Your task to perform on an android device: turn on showing notifications on the lock screen Image 0: 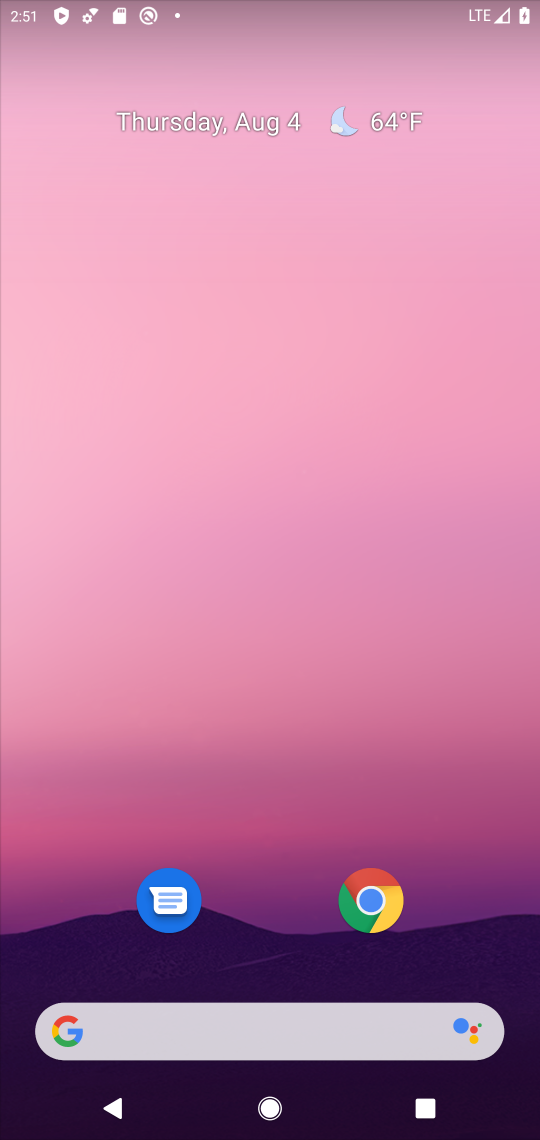
Step 0: drag from (502, 969) to (413, 28)
Your task to perform on an android device: turn on showing notifications on the lock screen Image 1: 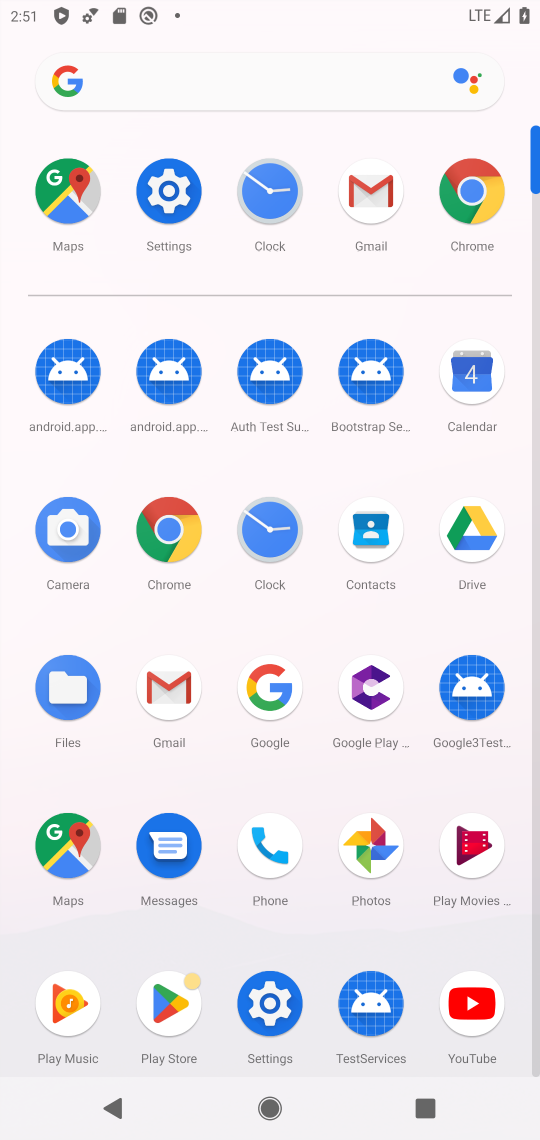
Step 1: click (151, 205)
Your task to perform on an android device: turn on showing notifications on the lock screen Image 2: 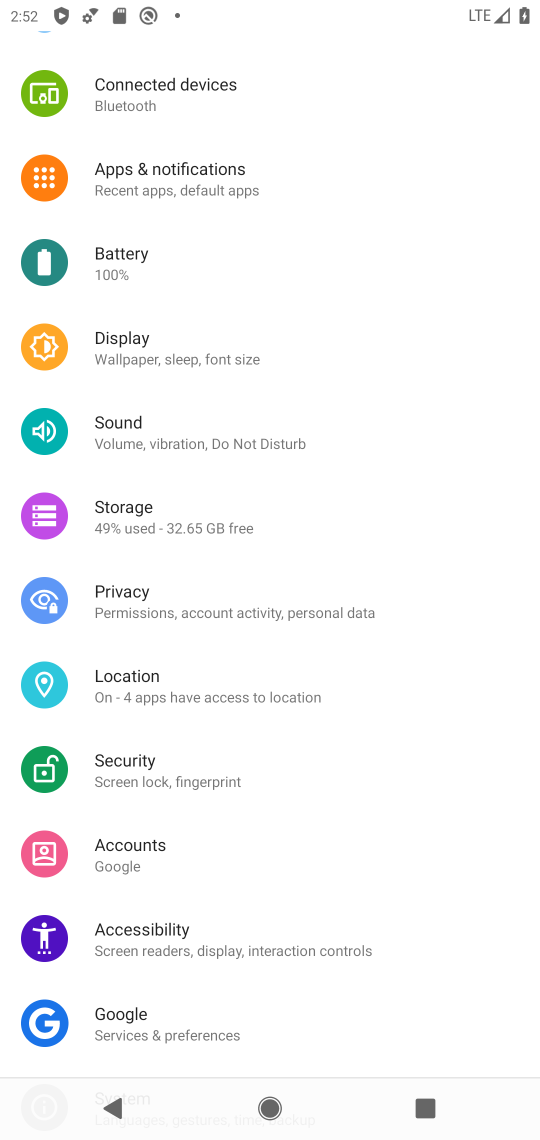
Step 2: click (193, 183)
Your task to perform on an android device: turn on showing notifications on the lock screen Image 3: 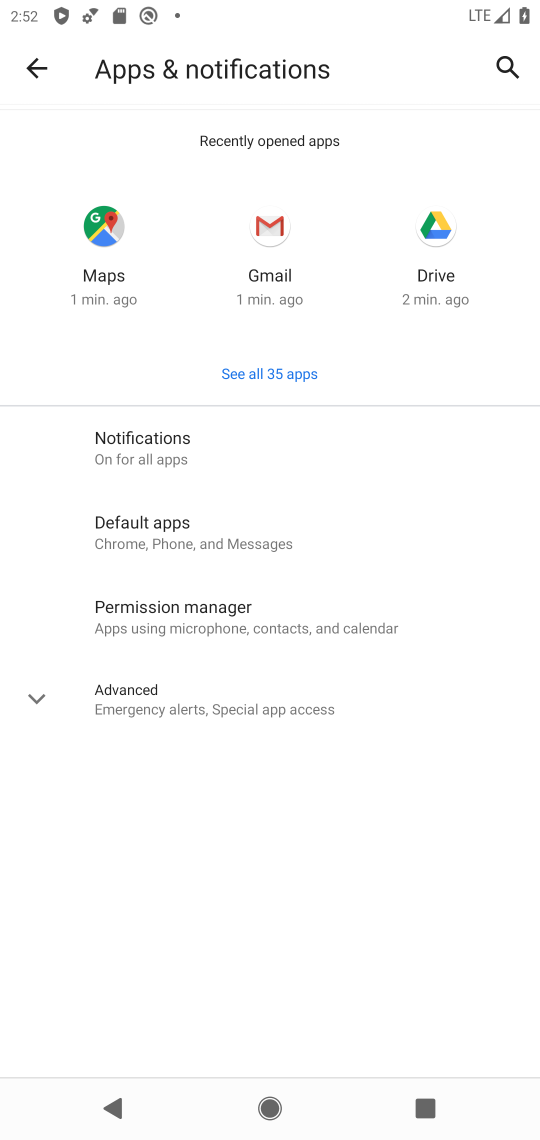
Step 3: click (245, 457)
Your task to perform on an android device: turn on showing notifications on the lock screen Image 4: 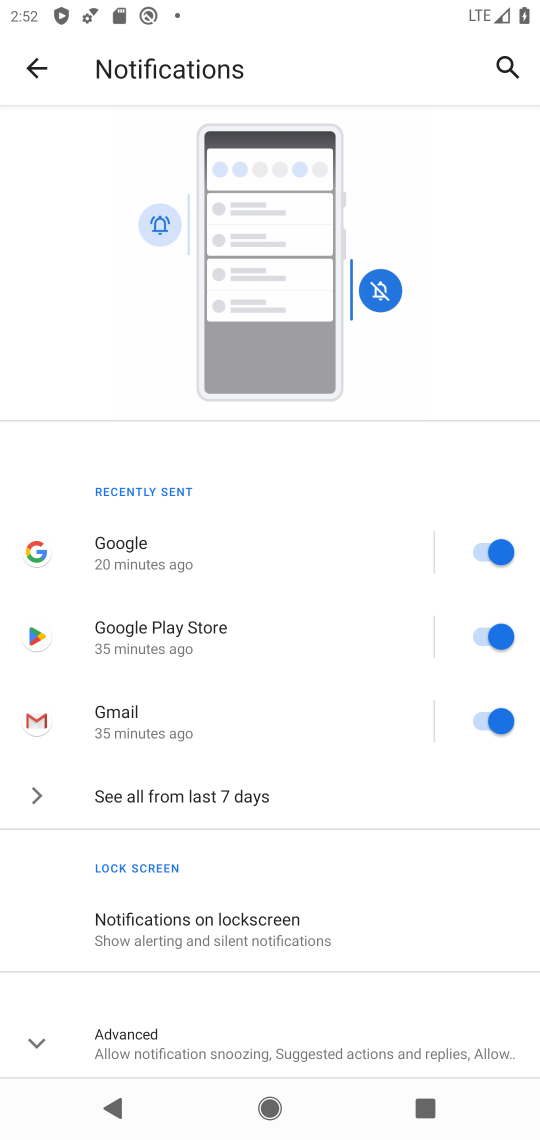
Step 4: drag from (394, 921) to (338, 317)
Your task to perform on an android device: turn on showing notifications on the lock screen Image 5: 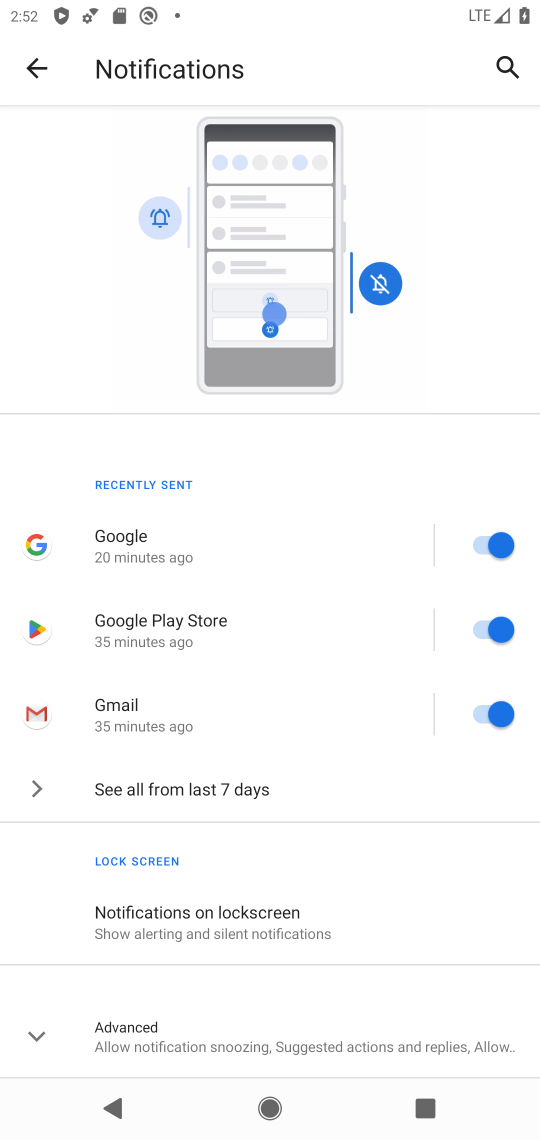
Step 5: click (300, 946)
Your task to perform on an android device: turn on showing notifications on the lock screen Image 6: 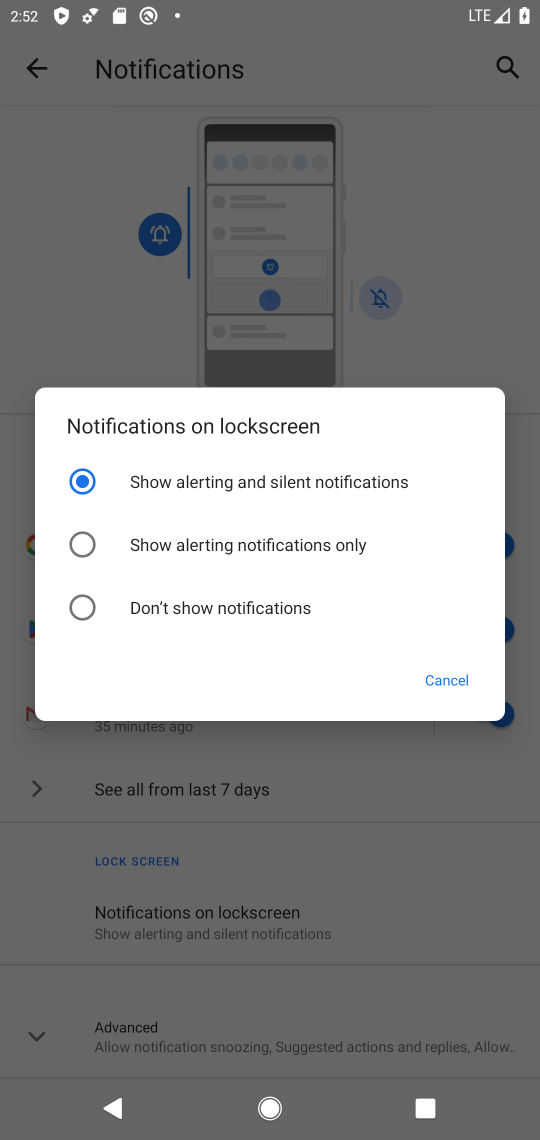
Step 6: task complete